Your task to perform on an android device: Go to Android settings Image 0: 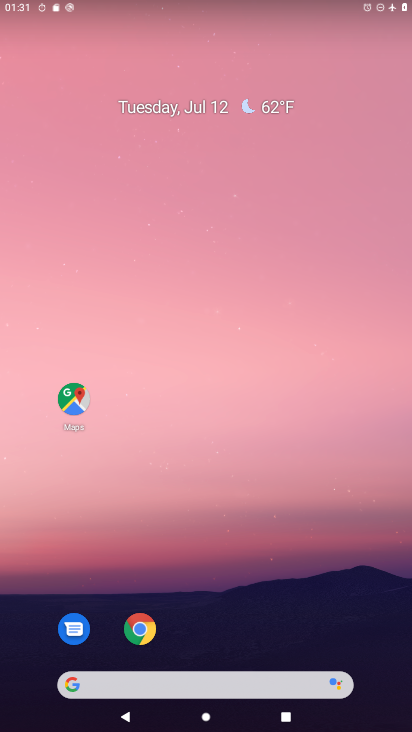
Step 0: drag from (255, 596) to (284, 76)
Your task to perform on an android device: Go to Android settings Image 1: 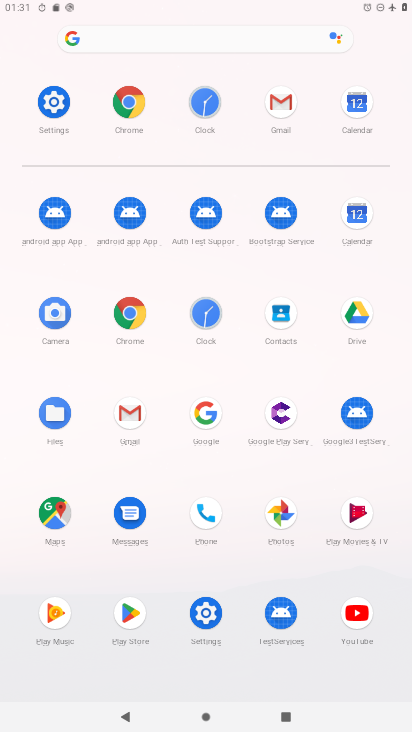
Step 1: click (204, 609)
Your task to perform on an android device: Go to Android settings Image 2: 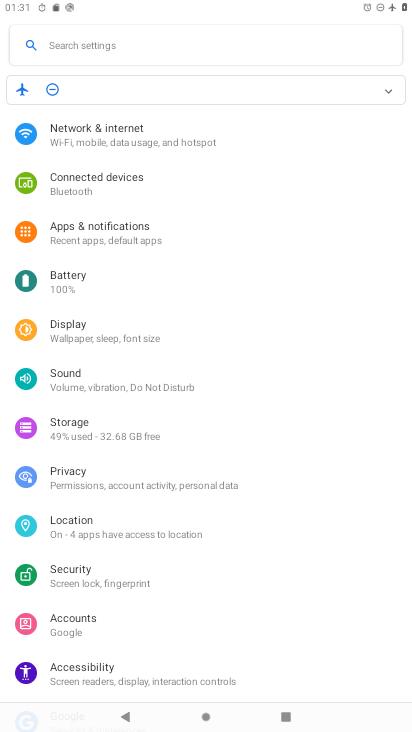
Step 2: drag from (250, 629) to (241, 191)
Your task to perform on an android device: Go to Android settings Image 3: 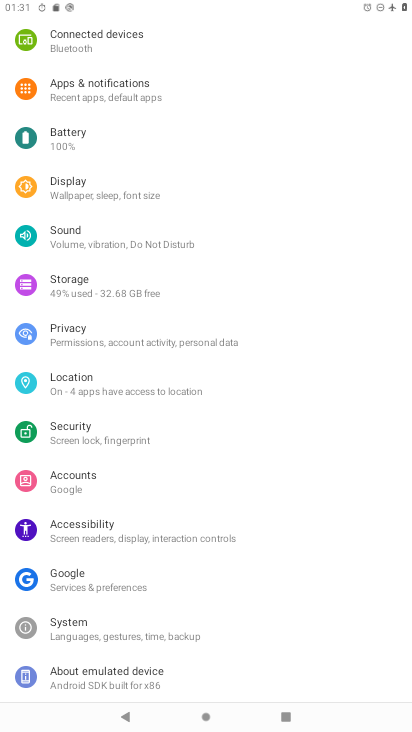
Step 3: click (111, 670)
Your task to perform on an android device: Go to Android settings Image 4: 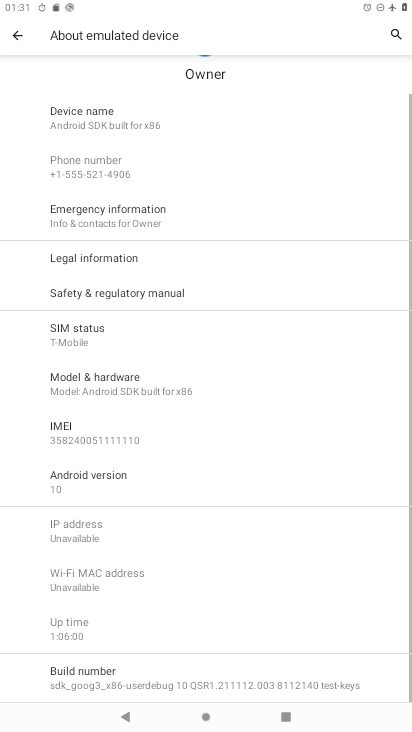
Step 4: drag from (153, 643) to (143, 235)
Your task to perform on an android device: Go to Android settings Image 5: 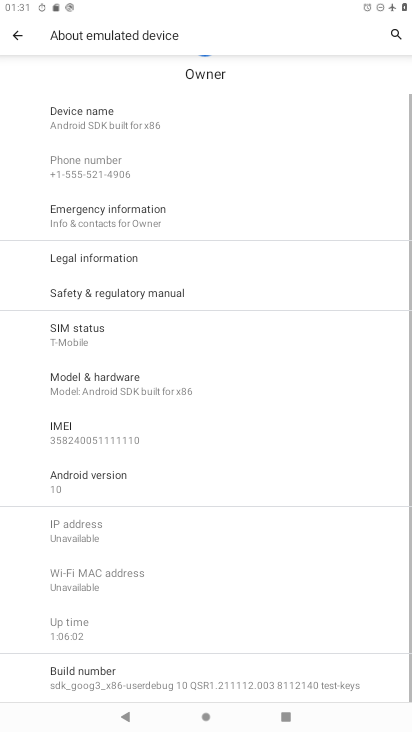
Step 5: click (77, 475)
Your task to perform on an android device: Go to Android settings Image 6: 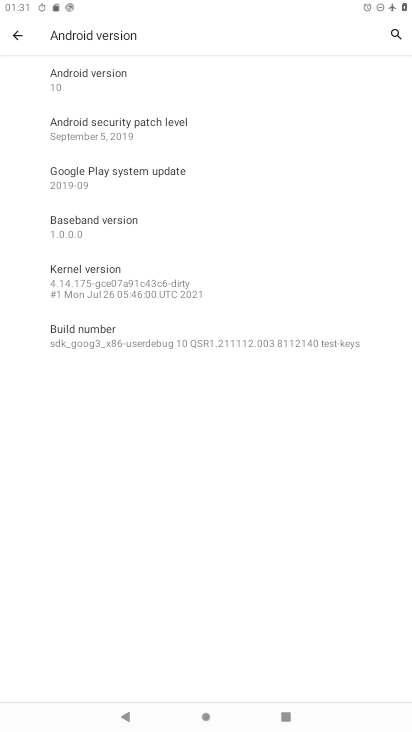
Step 6: click (74, 76)
Your task to perform on an android device: Go to Android settings Image 7: 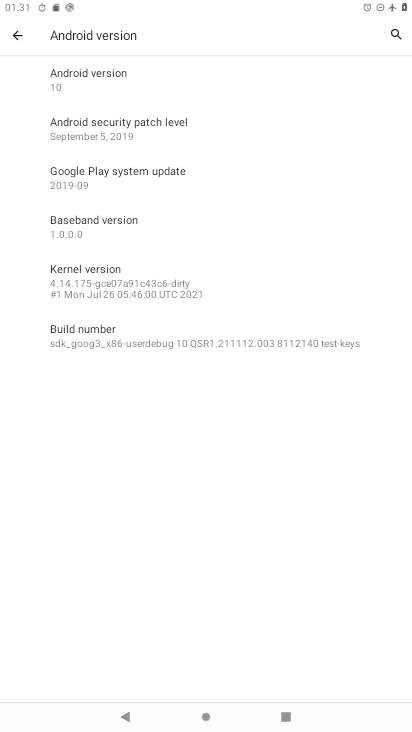
Step 7: task complete